Your task to perform on an android device: Go to location settings Image 0: 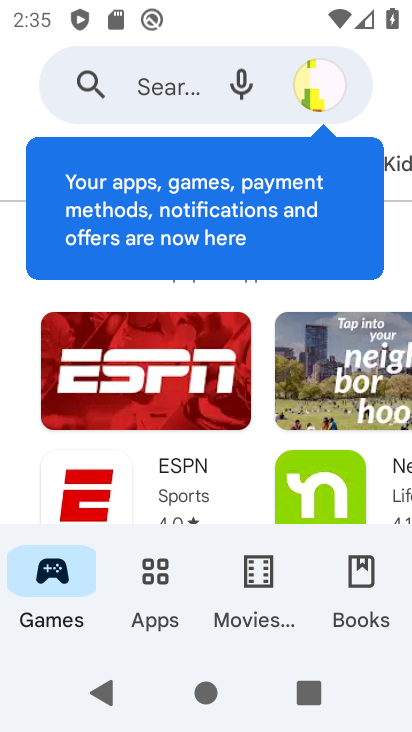
Step 0: press home button
Your task to perform on an android device: Go to location settings Image 1: 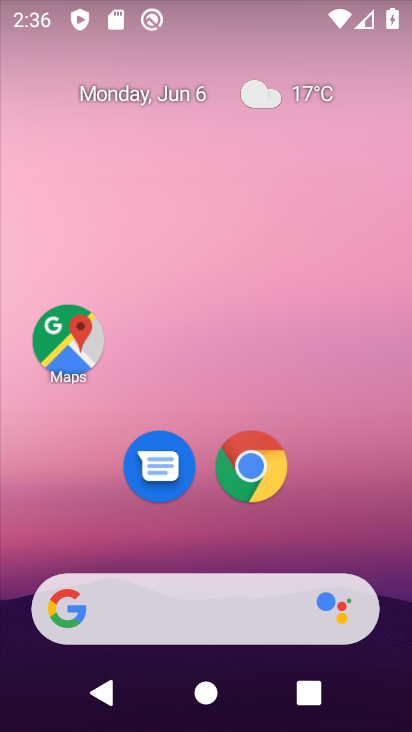
Step 1: drag from (355, 512) to (177, 7)
Your task to perform on an android device: Go to location settings Image 2: 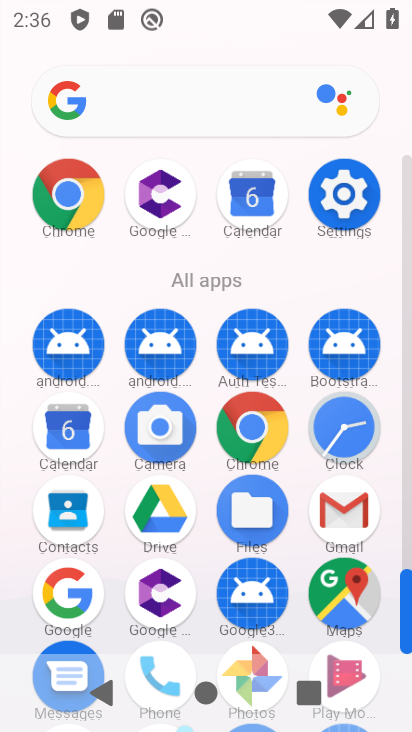
Step 2: click (329, 206)
Your task to perform on an android device: Go to location settings Image 3: 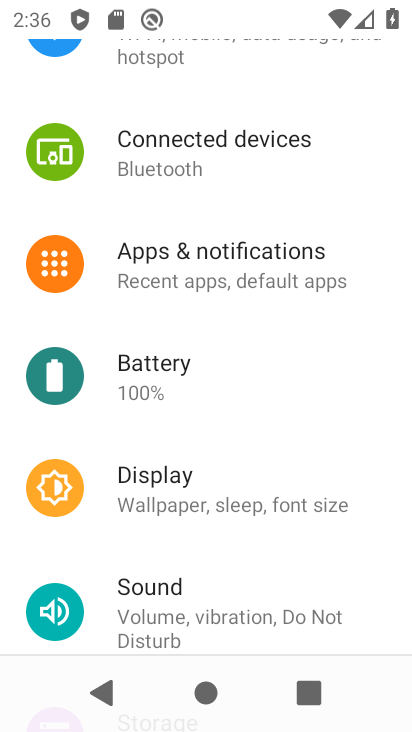
Step 3: drag from (205, 526) to (199, 13)
Your task to perform on an android device: Go to location settings Image 4: 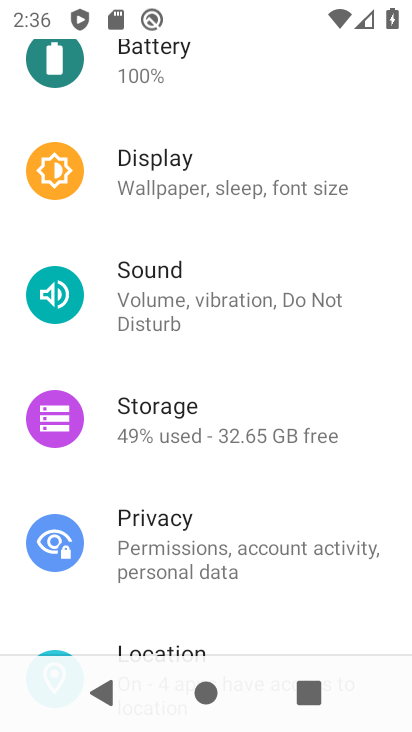
Step 4: drag from (212, 535) to (265, 106)
Your task to perform on an android device: Go to location settings Image 5: 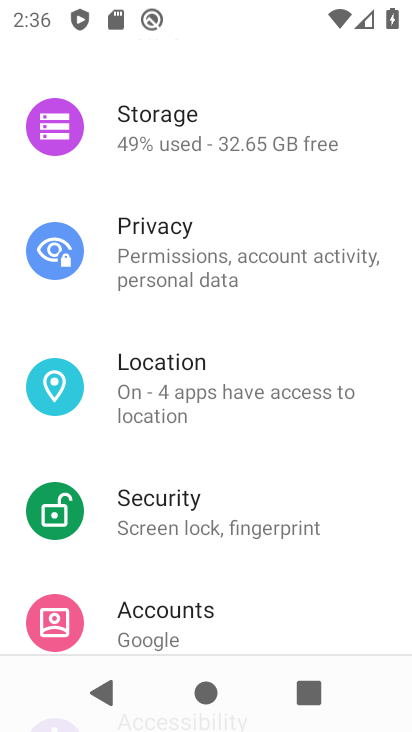
Step 5: click (213, 386)
Your task to perform on an android device: Go to location settings Image 6: 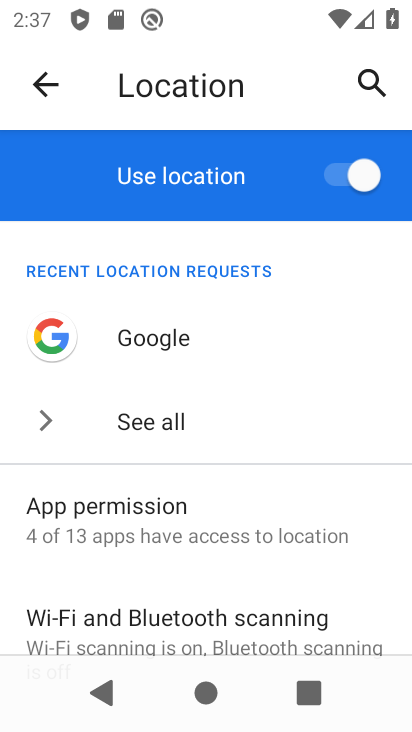
Step 6: task complete